Your task to perform on an android device: Is it going to rain this weekend? Image 0: 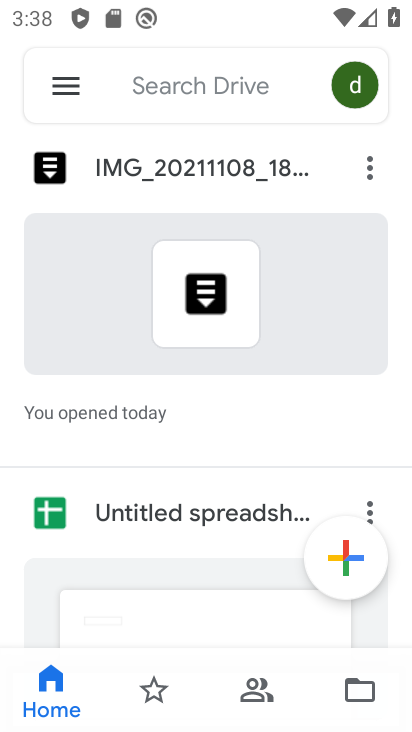
Step 0: press home button
Your task to perform on an android device: Is it going to rain this weekend? Image 1: 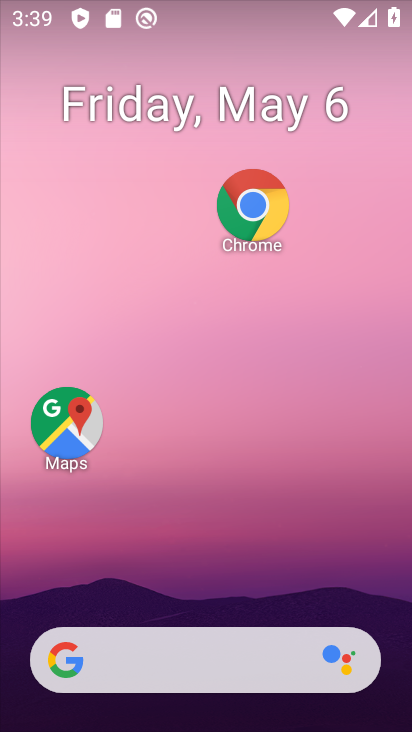
Step 1: click (229, 670)
Your task to perform on an android device: Is it going to rain this weekend? Image 2: 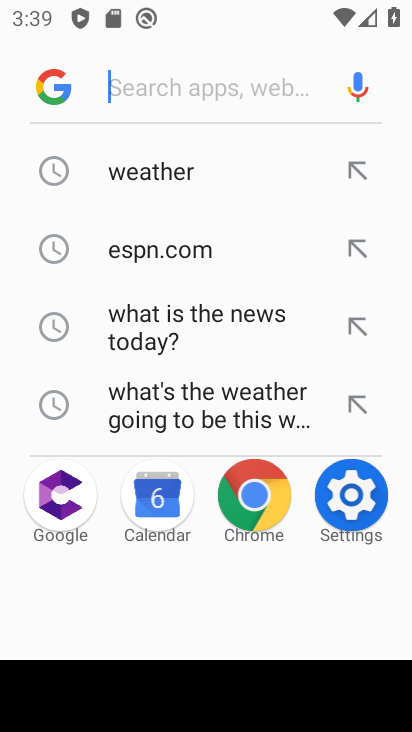
Step 2: click (122, 164)
Your task to perform on an android device: Is it going to rain this weekend? Image 3: 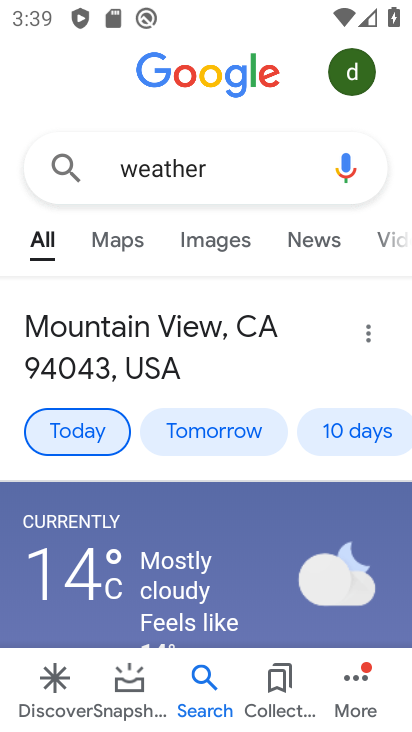
Step 3: task complete